Your task to perform on an android device: Go to network settings Image 0: 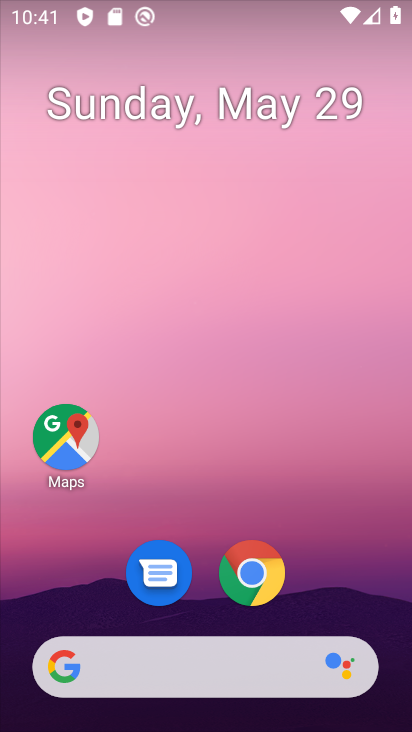
Step 0: drag from (347, 570) to (271, 76)
Your task to perform on an android device: Go to network settings Image 1: 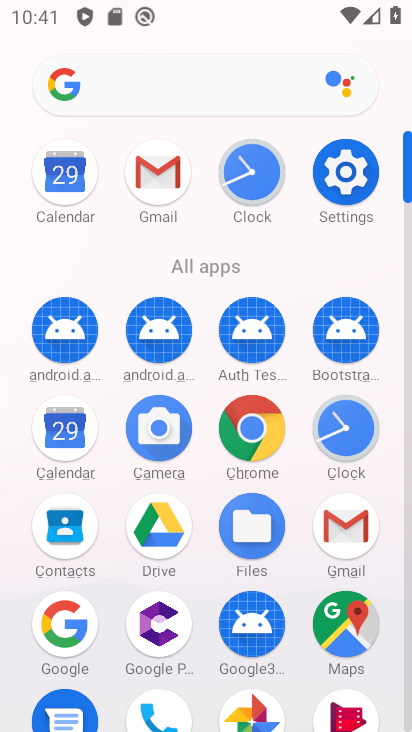
Step 1: click (337, 171)
Your task to perform on an android device: Go to network settings Image 2: 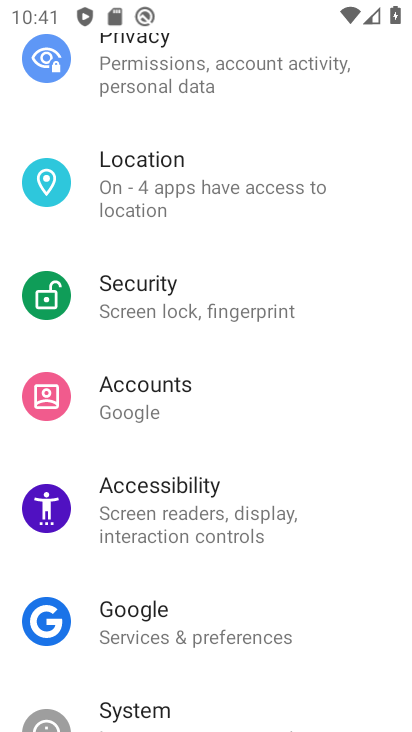
Step 2: drag from (302, 135) to (265, 710)
Your task to perform on an android device: Go to network settings Image 3: 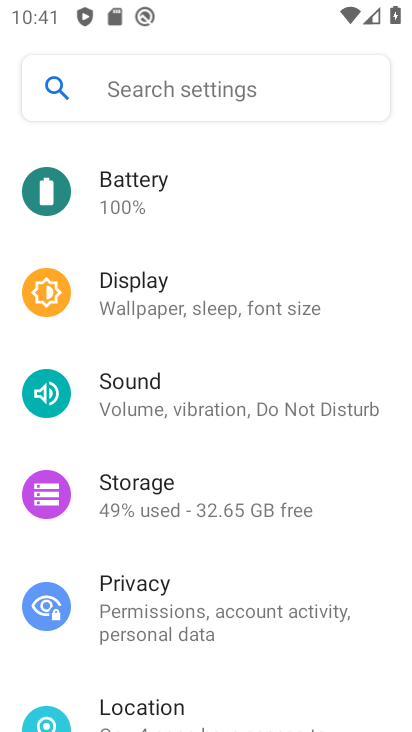
Step 3: drag from (283, 186) to (40, 730)
Your task to perform on an android device: Go to network settings Image 4: 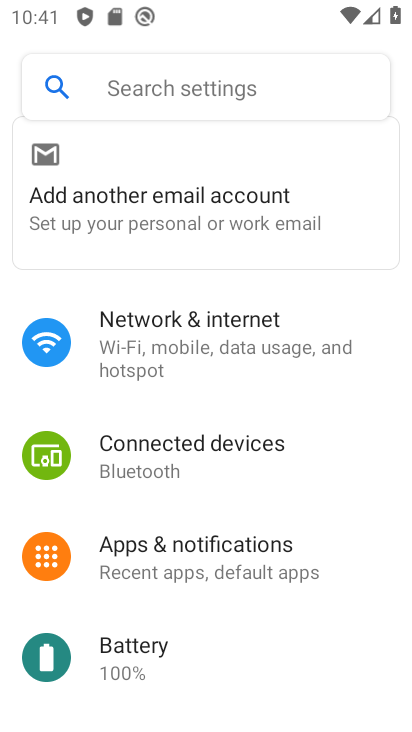
Step 4: click (128, 346)
Your task to perform on an android device: Go to network settings Image 5: 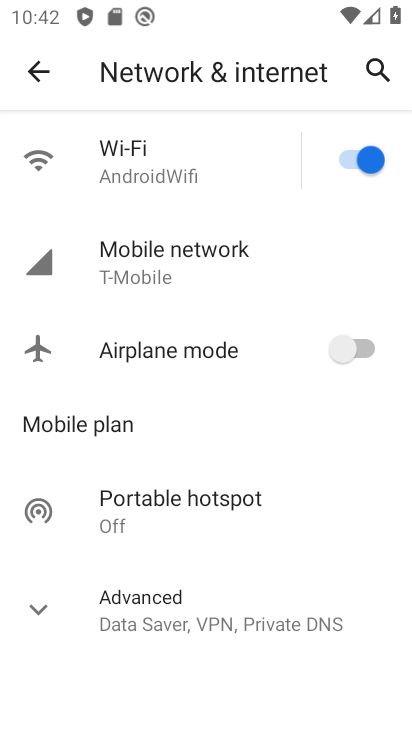
Step 5: click (239, 264)
Your task to perform on an android device: Go to network settings Image 6: 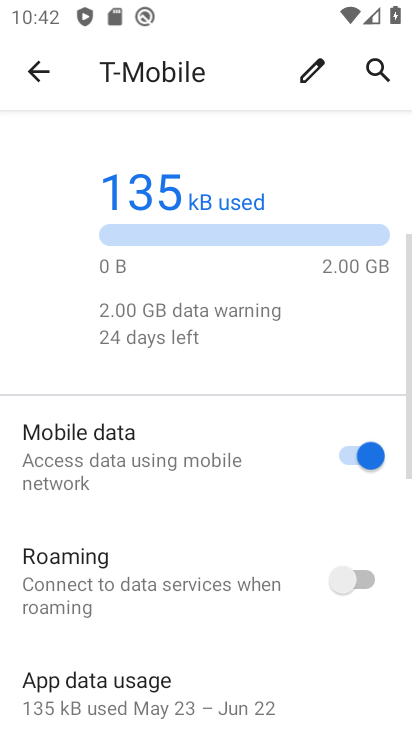
Step 6: task complete